Your task to perform on an android device: turn on sleep mode Image 0: 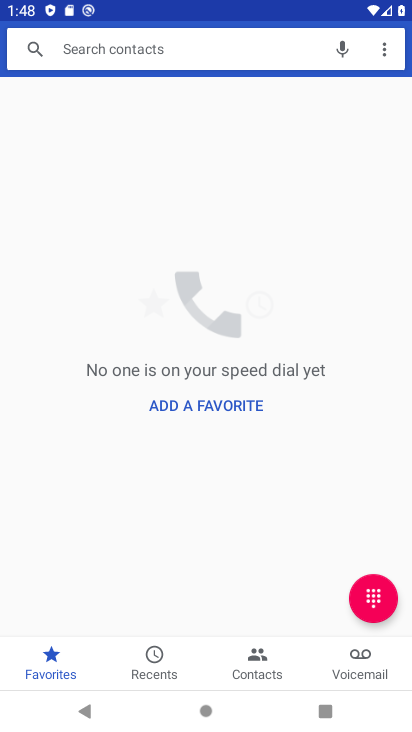
Step 0: press home button
Your task to perform on an android device: turn on sleep mode Image 1: 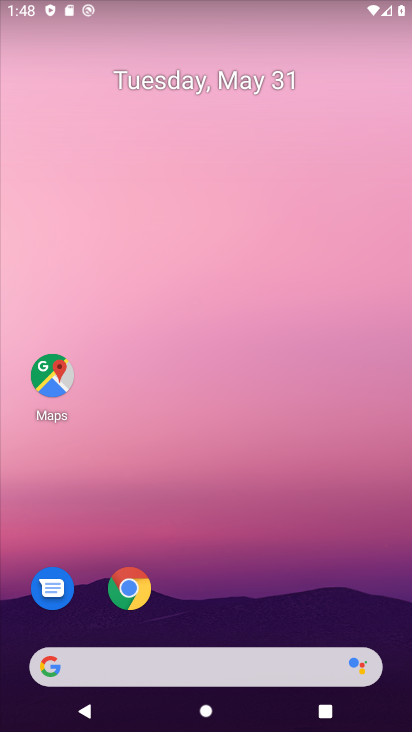
Step 1: drag from (192, 16) to (239, 553)
Your task to perform on an android device: turn on sleep mode Image 2: 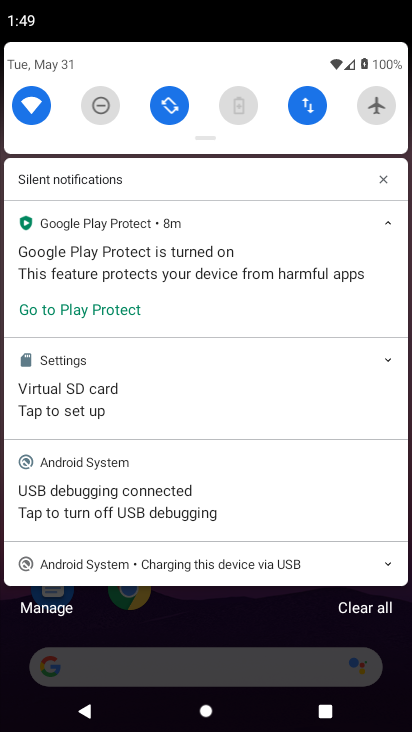
Step 2: drag from (209, 139) to (202, 455)
Your task to perform on an android device: turn on sleep mode Image 3: 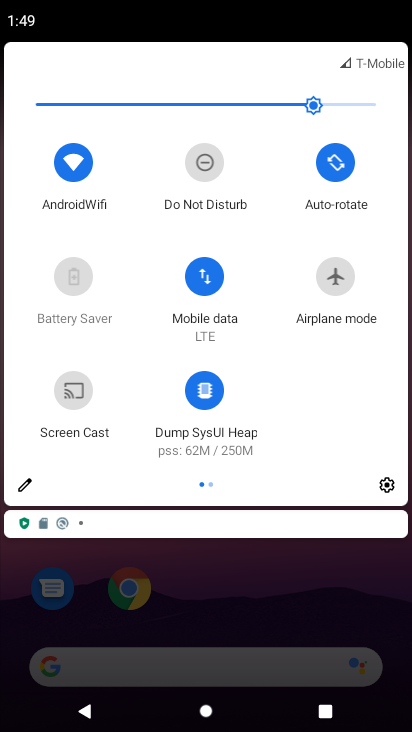
Step 3: click (28, 483)
Your task to perform on an android device: turn on sleep mode Image 4: 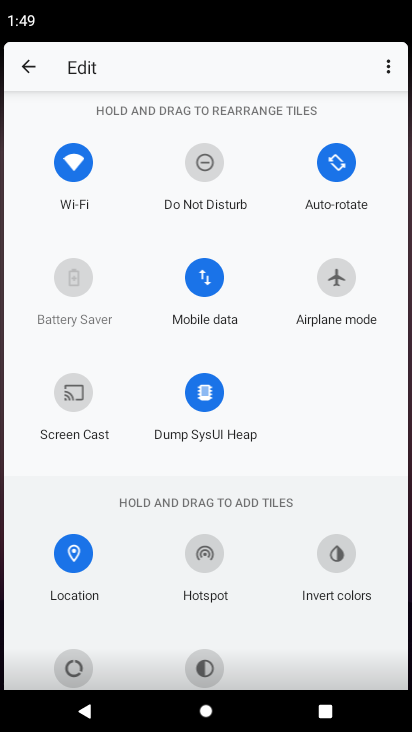
Step 4: task complete